Your task to perform on an android device: choose inbox layout in the gmail app Image 0: 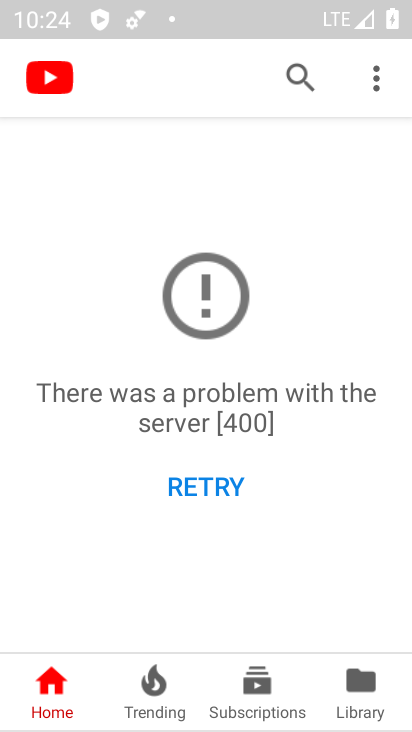
Step 0: press back button
Your task to perform on an android device: choose inbox layout in the gmail app Image 1: 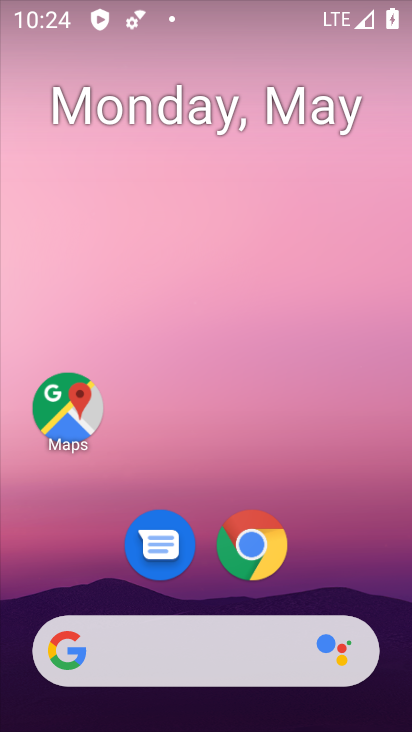
Step 1: drag from (320, 553) to (177, 51)
Your task to perform on an android device: choose inbox layout in the gmail app Image 2: 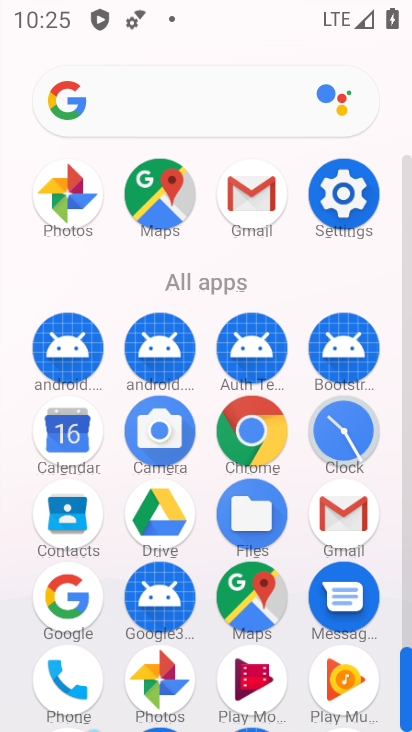
Step 2: click (250, 193)
Your task to perform on an android device: choose inbox layout in the gmail app Image 3: 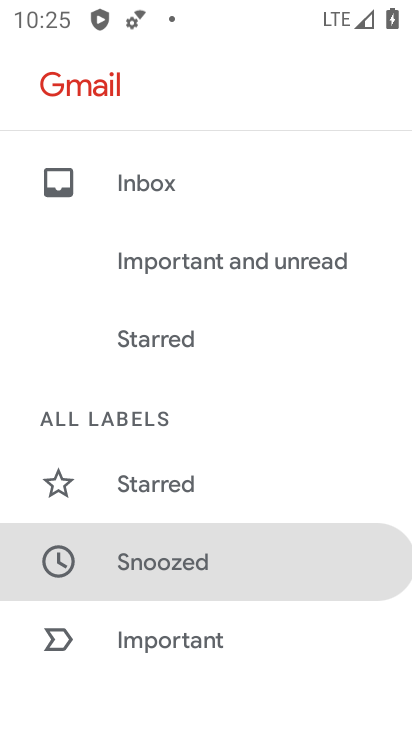
Step 3: drag from (221, 471) to (265, 333)
Your task to perform on an android device: choose inbox layout in the gmail app Image 4: 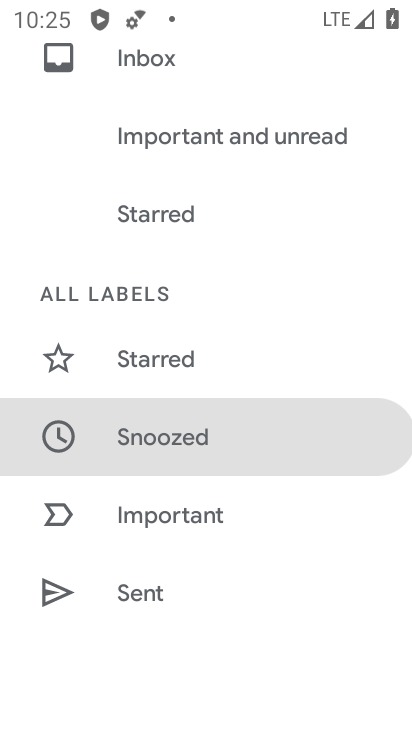
Step 4: drag from (209, 552) to (251, 412)
Your task to perform on an android device: choose inbox layout in the gmail app Image 5: 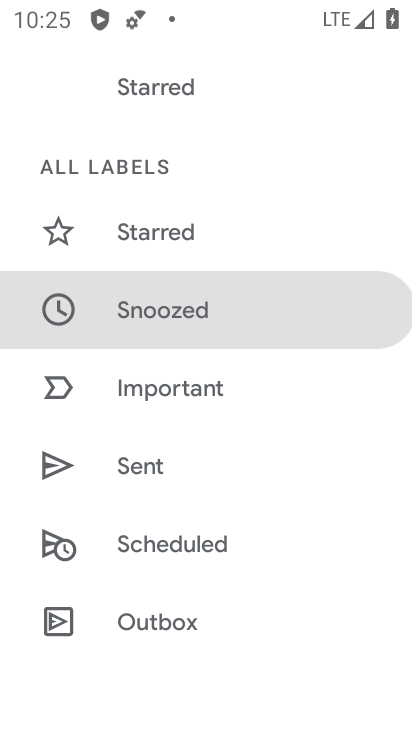
Step 5: drag from (207, 571) to (251, 459)
Your task to perform on an android device: choose inbox layout in the gmail app Image 6: 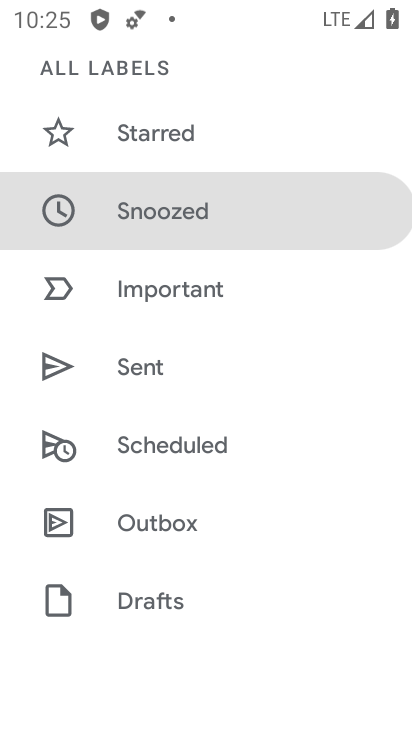
Step 6: drag from (205, 619) to (253, 455)
Your task to perform on an android device: choose inbox layout in the gmail app Image 7: 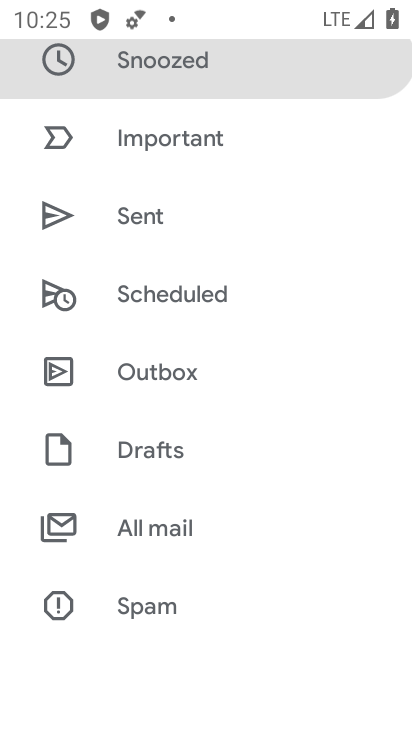
Step 7: drag from (155, 609) to (252, 444)
Your task to perform on an android device: choose inbox layout in the gmail app Image 8: 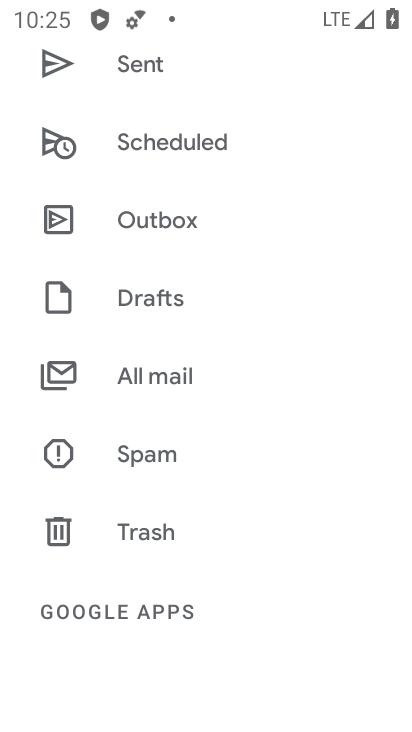
Step 8: drag from (187, 596) to (280, 443)
Your task to perform on an android device: choose inbox layout in the gmail app Image 9: 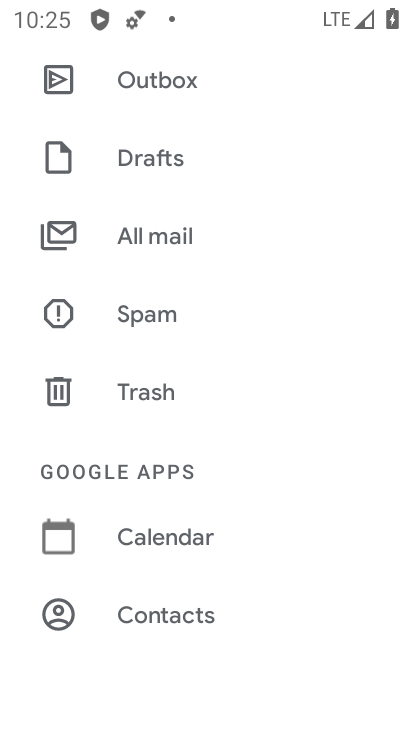
Step 9: drag from (190, 589) to (258, 402)
Your task to perform on an android device: choose inbox layout in the gmail app Image 10: 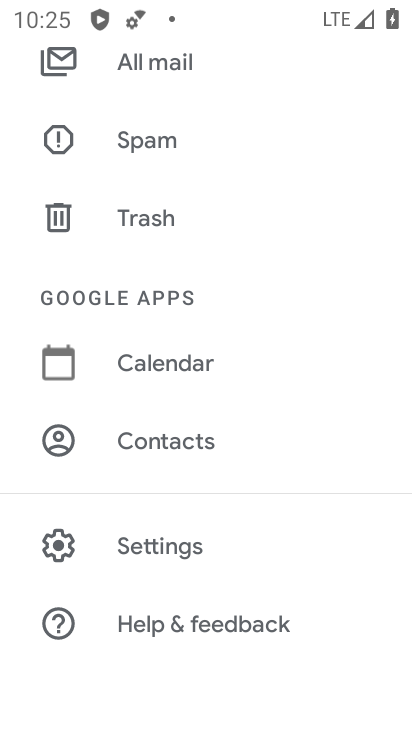
Step 10: drag from (166, 589) to (237, 404)
Your task to perform on an android device: choose inbox layout in the gmail app Image 11: 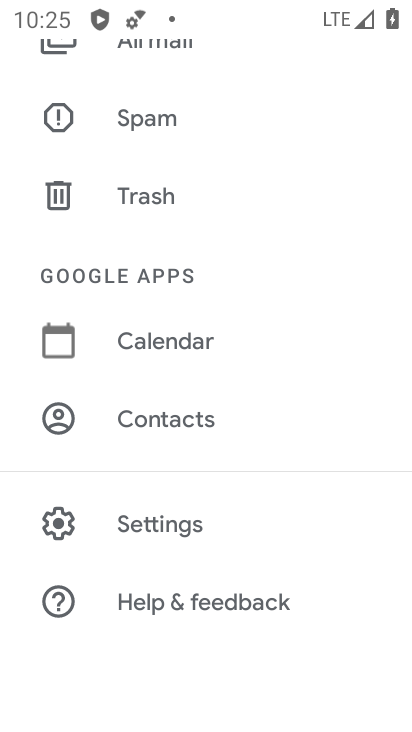
Step 11: click (172, 525)
Your task to perform on an android device: choose inbox layout in the gmail app Image 12: 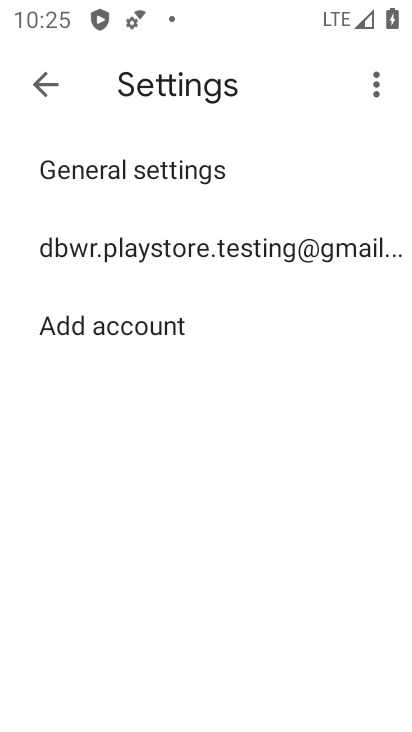
Step 12: click (212, 244)
Your task to perform on an android device: choose inbox layout in the gmail app Image 13: 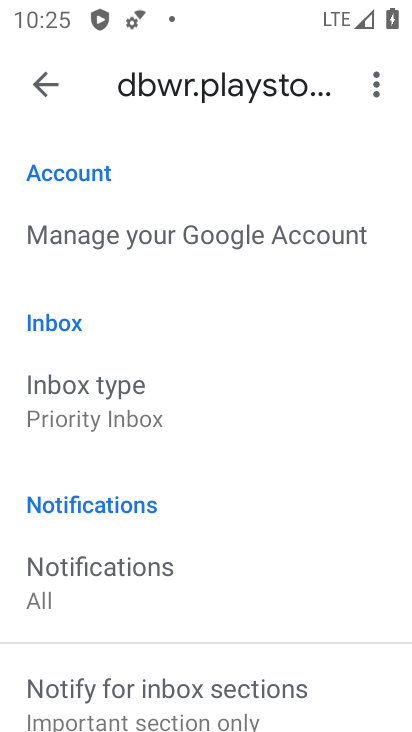
Step 13: click (113, 381)
Your task to perform on an android device: choose inbox layout in the gmail app Image 14: 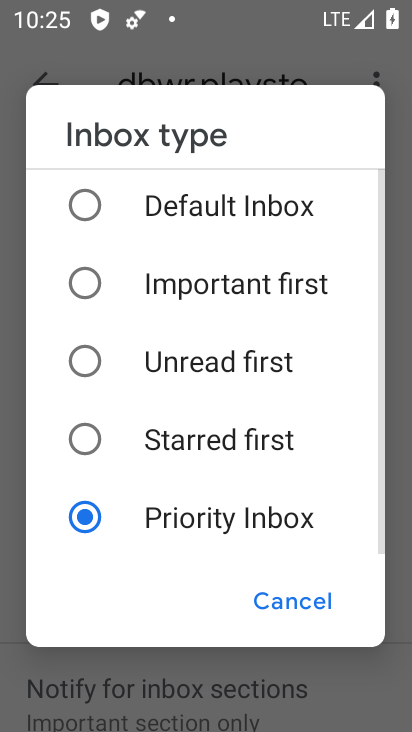
Step 14: click (86, 358)
Your task to perform on an android device: choose inbox layout in the gmail app Image 15: 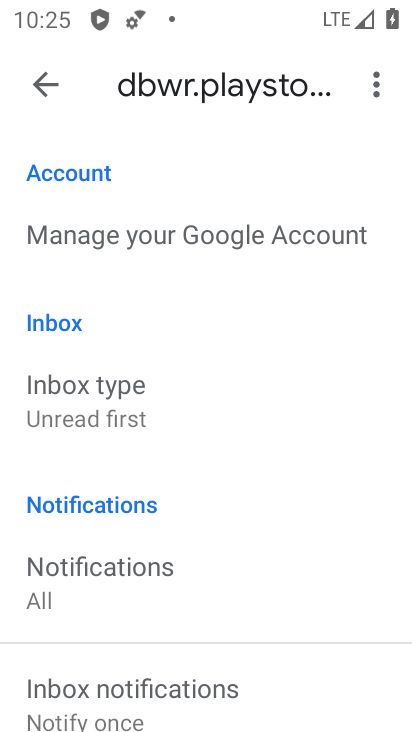
Step 15: task complete